Your task to perform on an android device: turn off priority inbox in the gmail app Image 0: 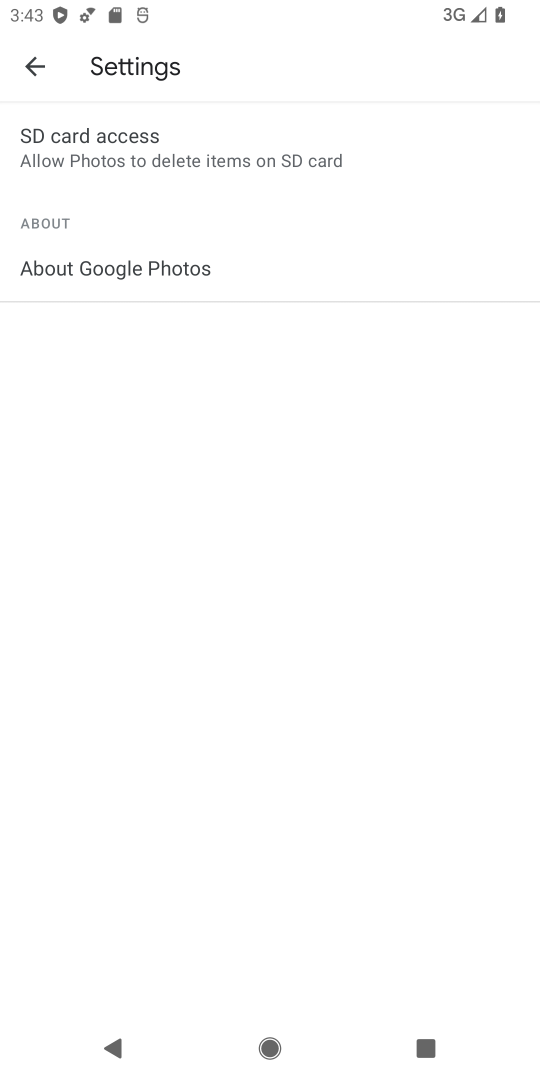
Step 0: click (15, 68)
Your task to perform on an android device: turn off priority inbox in the gmail app Image 1: 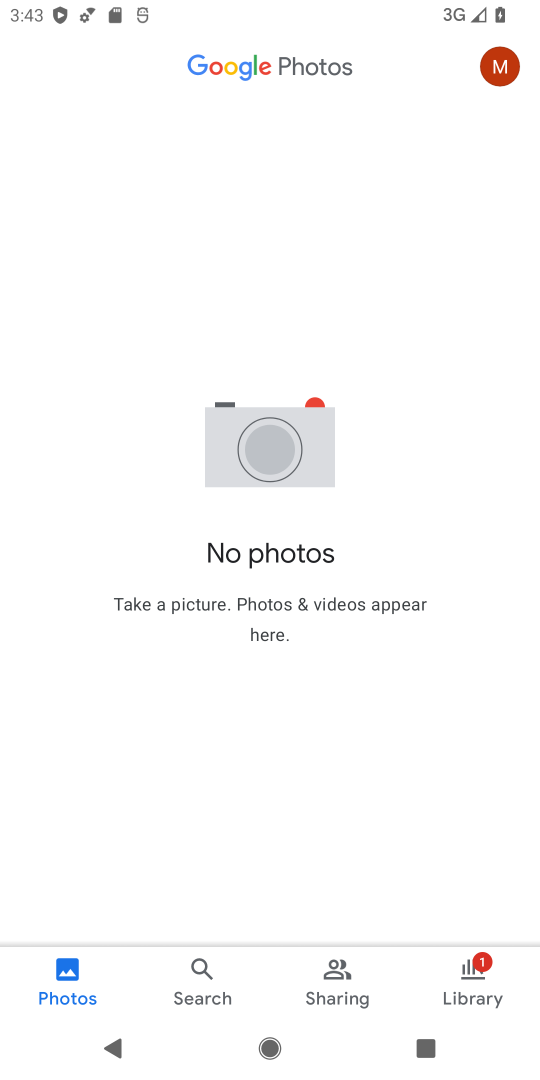
Step 1: press home button
Your task to perform on an android device: turn off priority inbox in the gmail app Image 2: 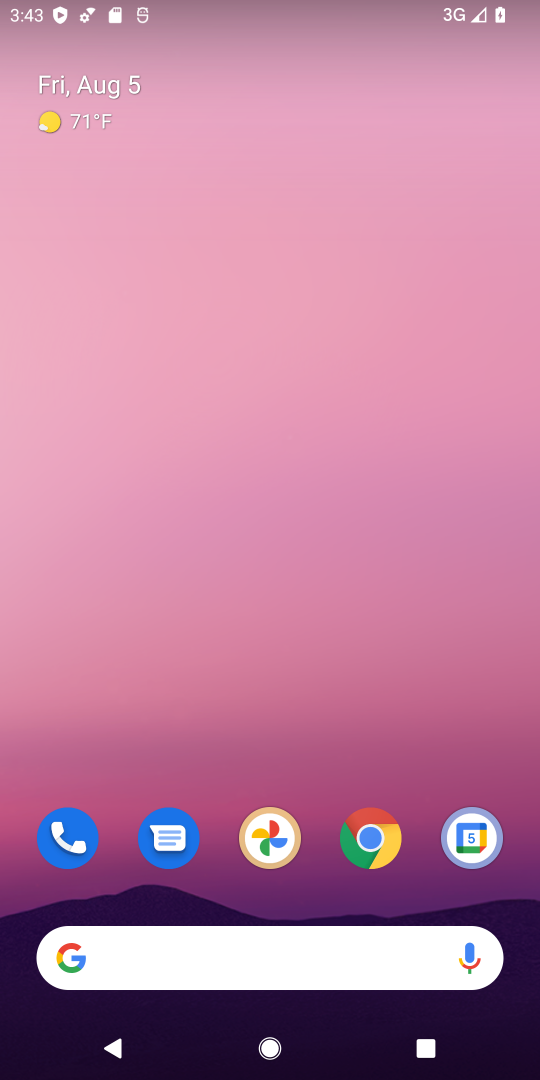
Step 2: drag from (167, 1028) to (293, 322)
Your task to perform on an android device: turn off priority inbox in the gmail app Image 3: 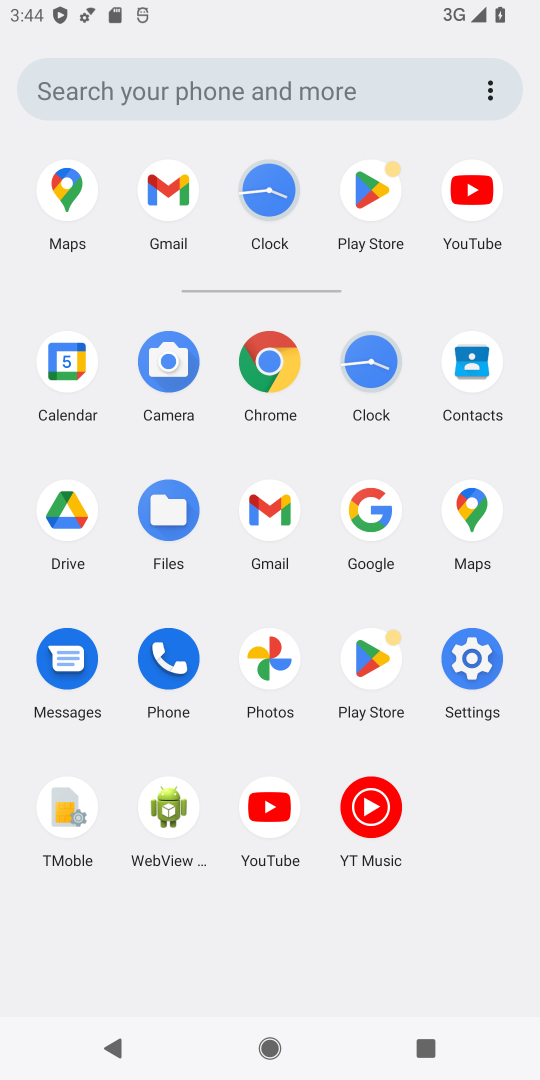
Step 3: click (274, 508)
Your task to perform on an android device: turn off priority inbox in the gmail app Image 4: 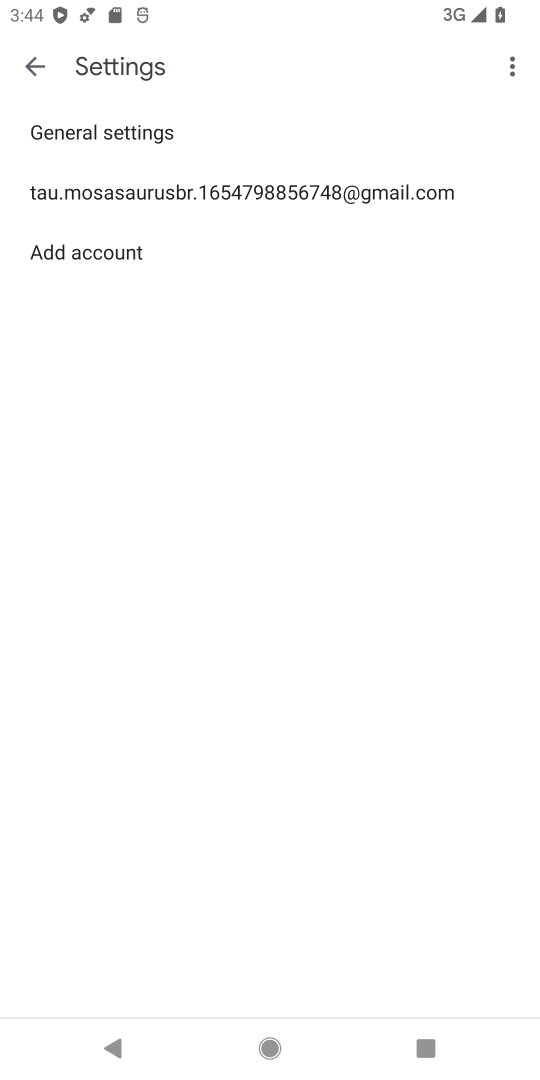
Step 4: click (82, 194)
Your task to perform on an android device: turn off priority inbox in the gmail app Image 5: 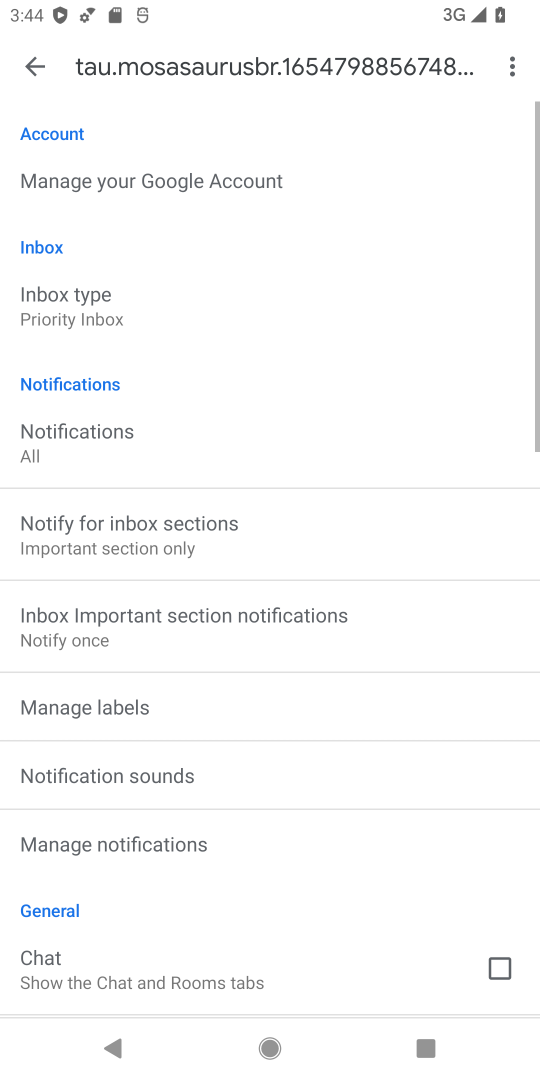
Step 5: click (86, 289)
Your task to perform on an android device: turn off priority inbox in the gmail app Image 6: 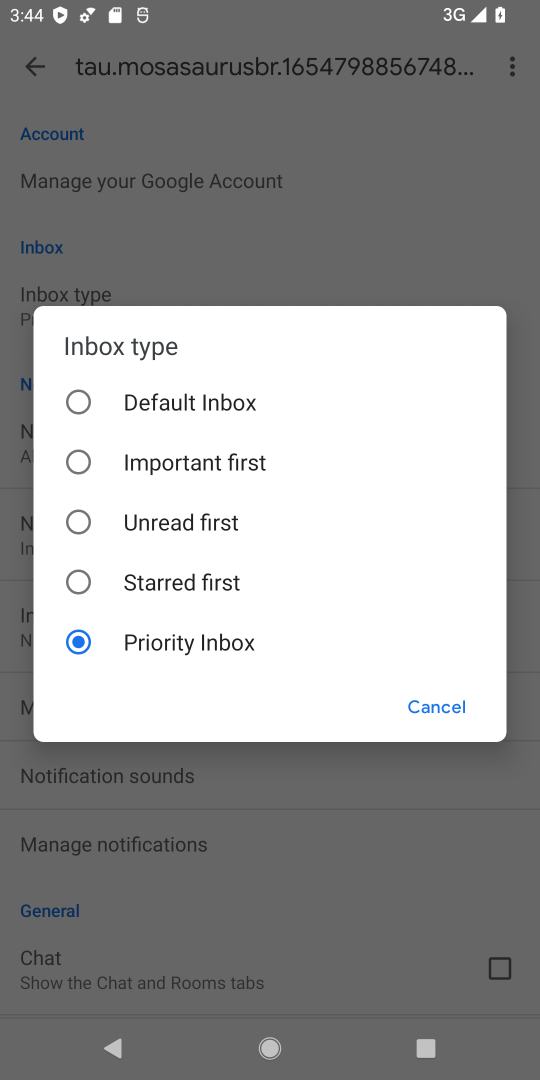
Step 6: click (166, 399)
Your task to perform on an android device: turn off priority inbox in the gmail app Image 7: 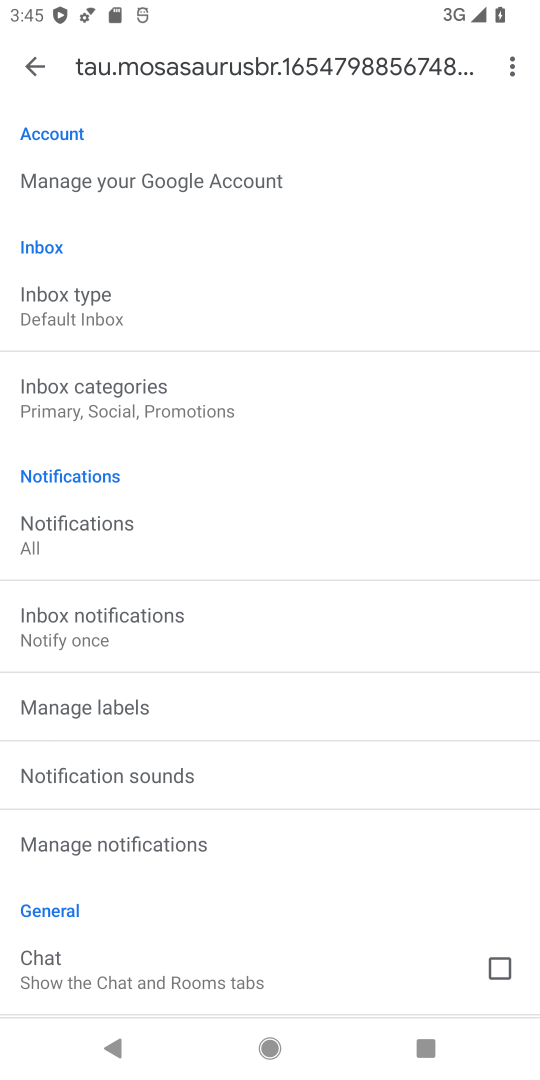
Step 7: task complete